Your task to perform on an android device: Open Google Chrome Image 0: 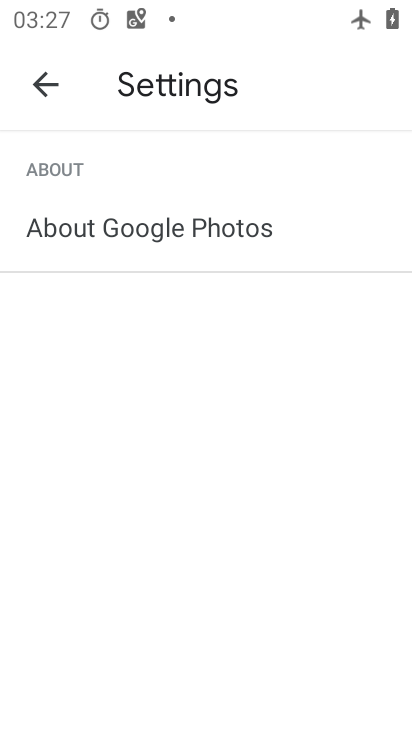
Step 0: press back button
Your task to perform on an android device: Open Google Chrome Image 1: 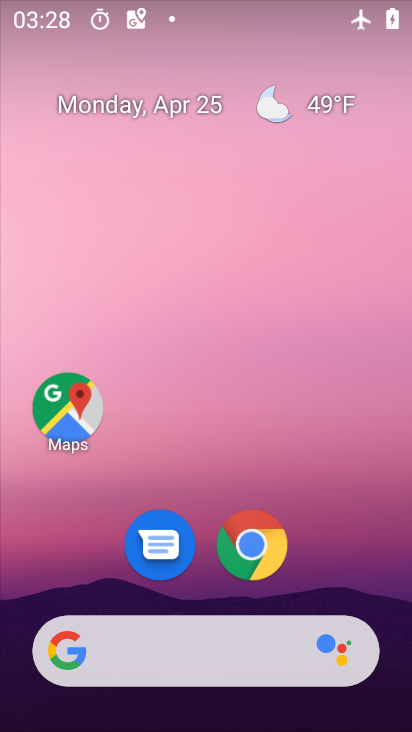
Step 1: click (252, 544)
Your task to perform on an android device: Open Google Chrome Image 2: 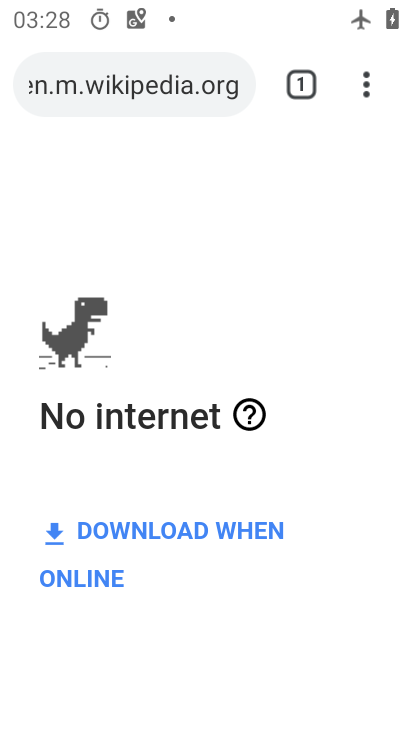
Step 2: task complete